Your task to perform on an android device: toggle notifications settings in the gmail app Image 0: 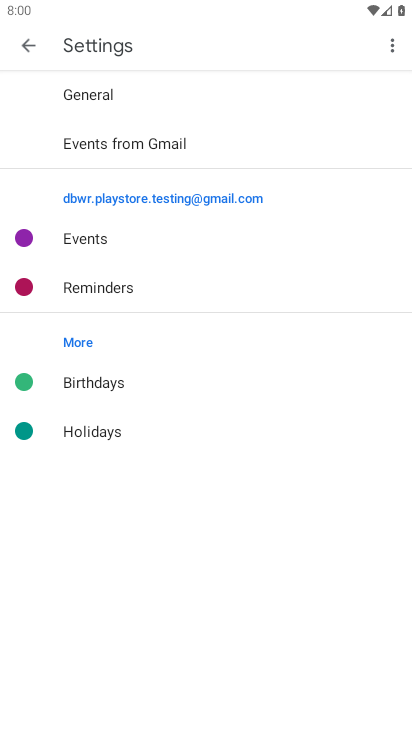
Step 0: press home button
Your task to perform on an android device: toggle notifications settings in the gmail app Image 1: 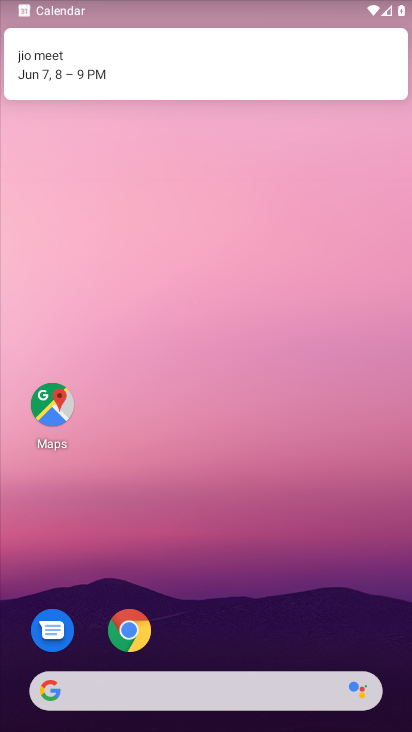
Step 1: drag from (285, 728) to (406, 130)
Your task to perform on an android device: toggle notifications settings in the gmail app Image 2: 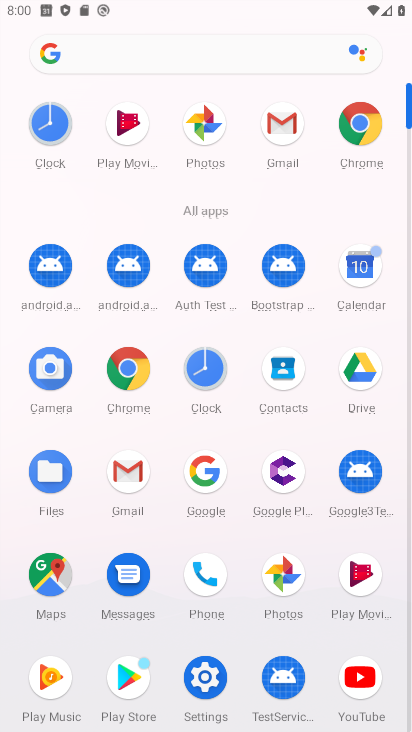
Step 2: click (287, 127)
Your task to perform on an android device: toggle notifications settings in the gmail app Image 3: 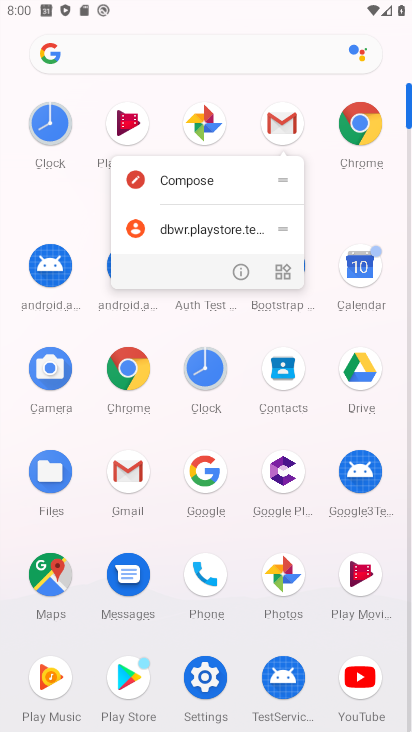
Step 3: click (249, 272)
Your task to perform on an android device: toggle notifications settings in the gmail app Image 4: 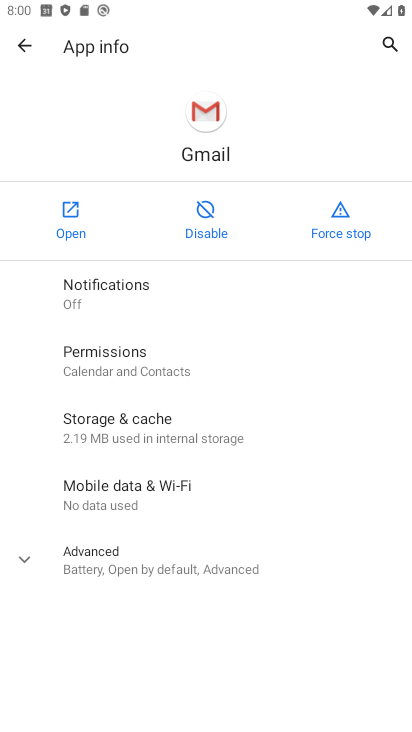
Step 4: click (96, 301)
Your task to perform on an android device: toggle notifications settings in the gmail app Image 5: 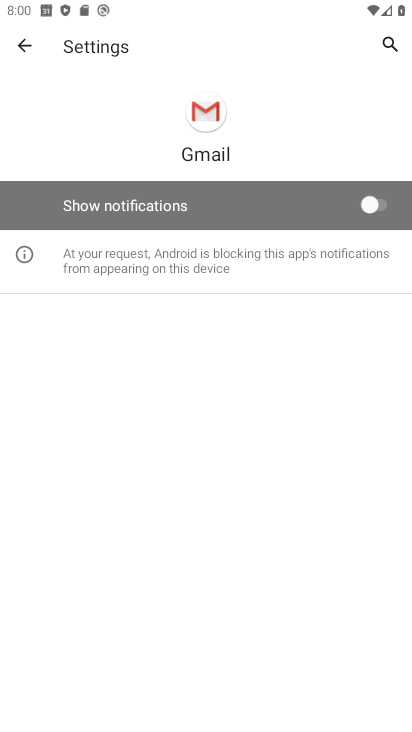
Step 5: click (380, 201)
Your task to perform on an android device: toggle notifications settings in the gmail app Image 6: 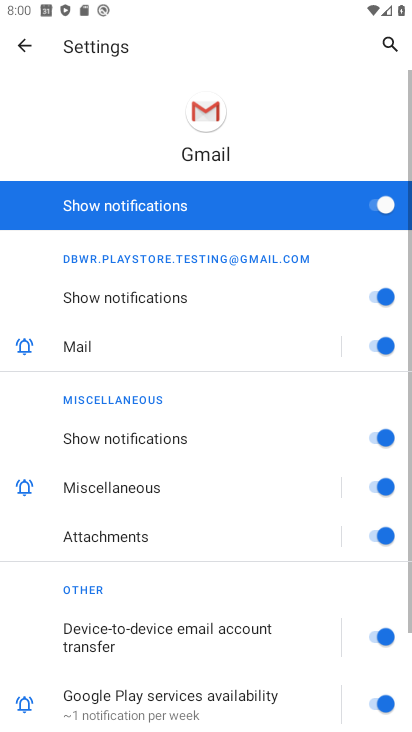
Step 6: task complete